Your task to perform on an android device: turn off priority inbox in the gmail app Image 0: 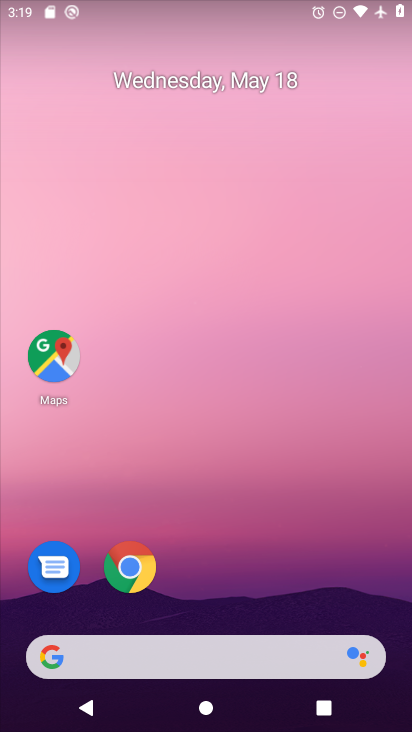
Step 0: drag from (197, 593) to (220, 210)
Your task to perform on an android device: turn off priority inbox in the gmail app Image 1: 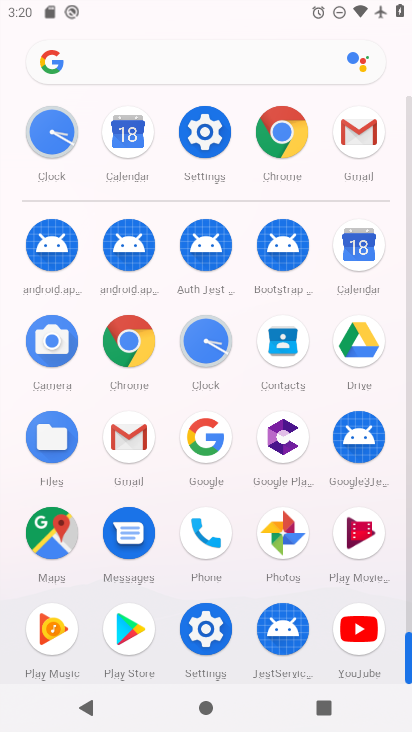
Step 1: click (359, 125)
Your task to perform on an android device: turn off priority inbox in the gmail app Image 2: 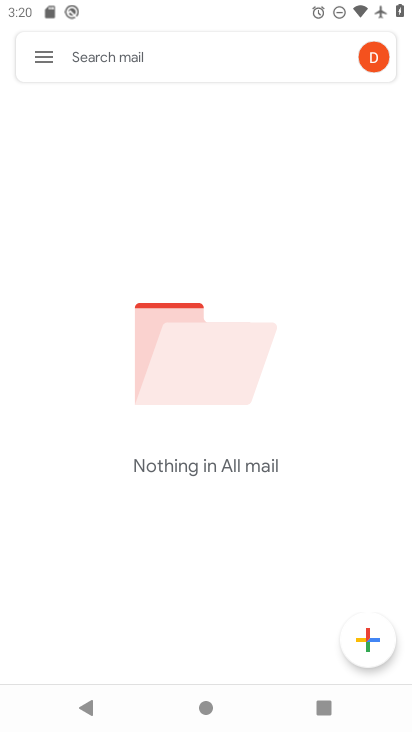
Step 2: click (37, 49)
Your task to perform on an android device: turn off priority inbox in the gmail app Image 3: 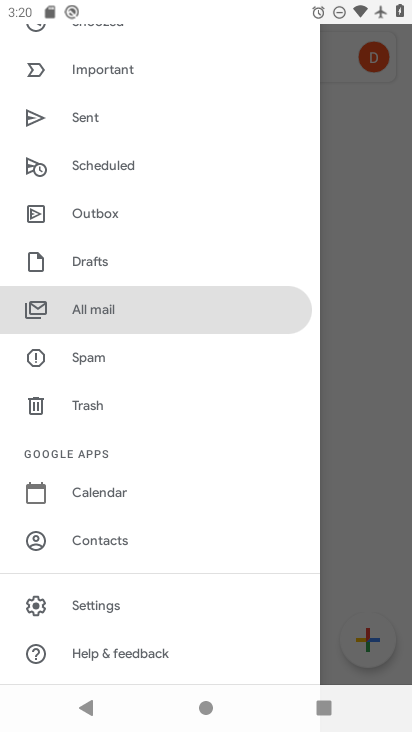
Step 3: click (112, 593)
Your task to perform on an android device: turn off priority inbox in the gmail app Image 4: 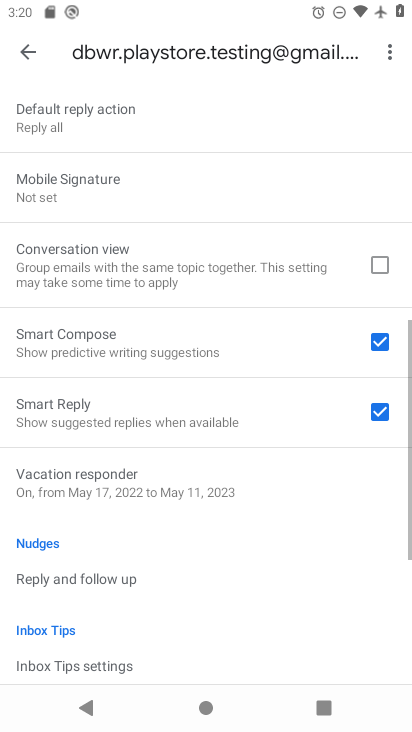
Step 4: drag from (194, 626) to (155, 662)
Your task to perform on an android device: turn off priority inbox in the gmail app Image 5: 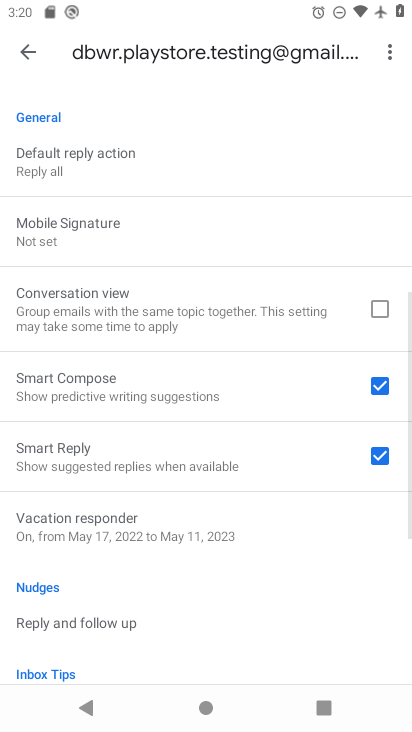
Step 5: drag from (99, 204) to (86, 587)
Your task to perform on an android device: turn off priority inbox in the gmail app Image 6: 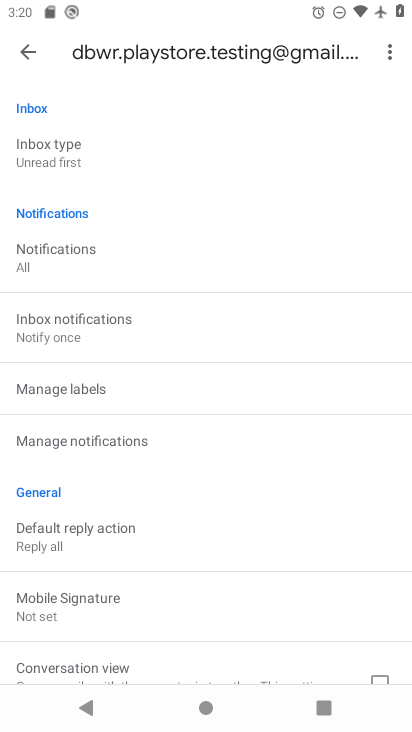
Step 6: drag from (106, 166) to (126, 432)
Your task to perform on an android device: turn off priority inbox in the gmail app Image 7: 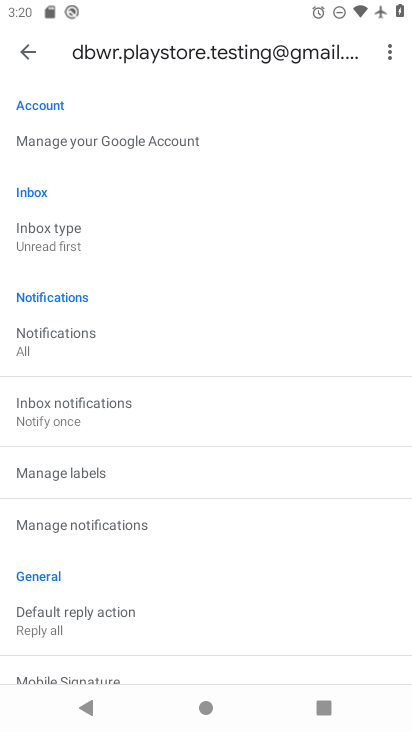
Step 7: click (66, 232)
Your task to perform on an android device: turn off priority inbox in the gmail app Image 8: 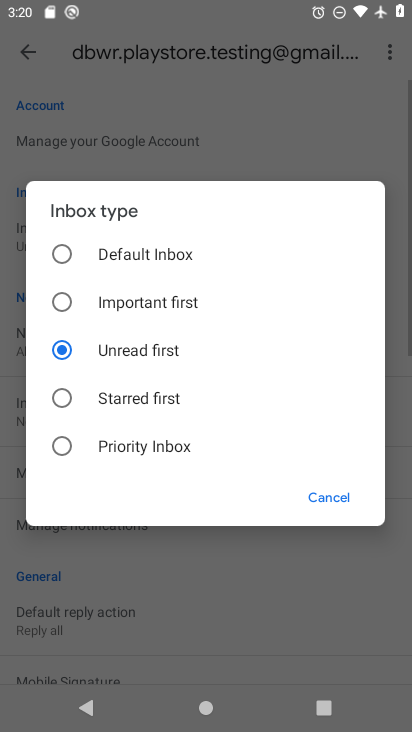
Step 8: click (113, 442)
Your task to perform on an android device: turn off priority inbox in the gmail app Image 9: 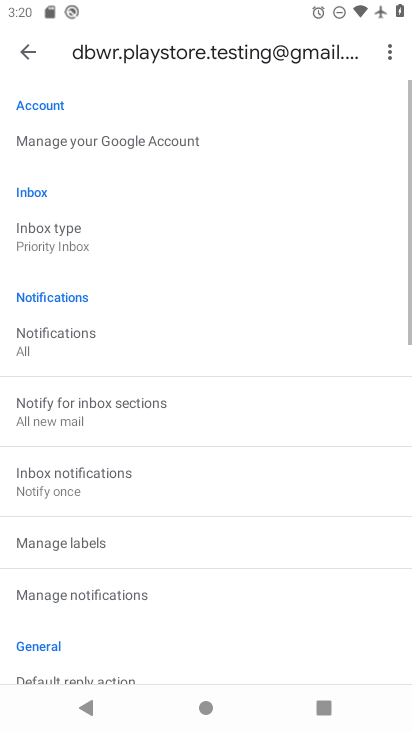
Step 9: task complete